Your task to perform on an android device: open app "Google Find My Device" (install if not already installed) Image 0: 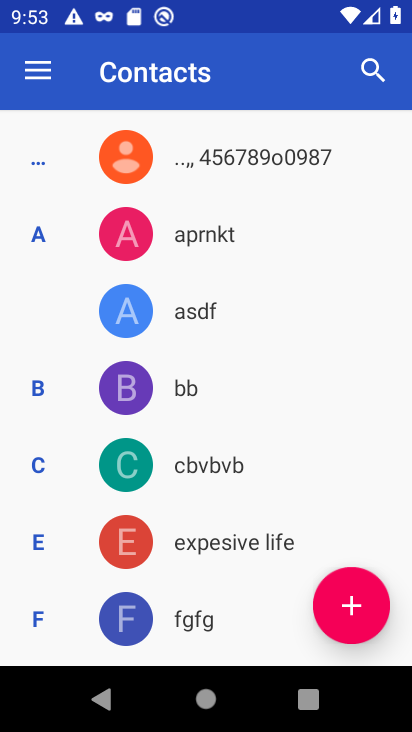
Step 0: press home button
Your task to perform on an android device: open app "Google Find My Device" (install if not already installed) Image 1: 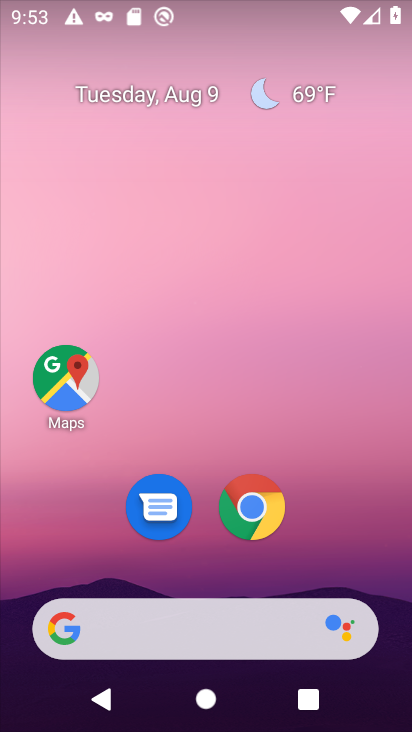
Step 1: drag from (191, 629) to (276, 71)
Your task to perform on an android device: open app "Google Find My Device" (install if not already installed) Image 2: 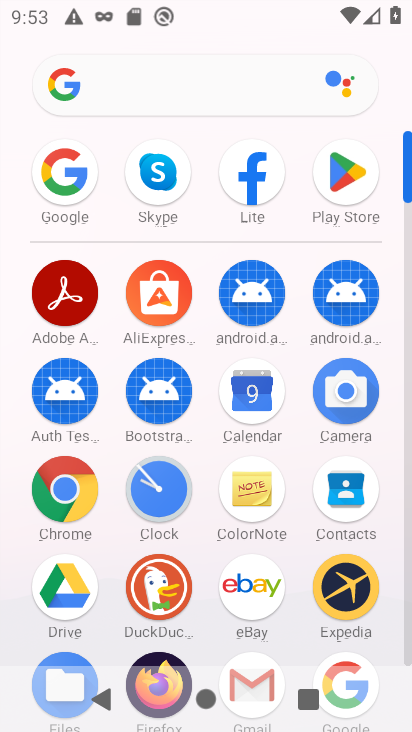
Step 2: click (347, 171)
Your task to perform on an android device: open app "Google Find My Device" (install if not already installed) Image 3: 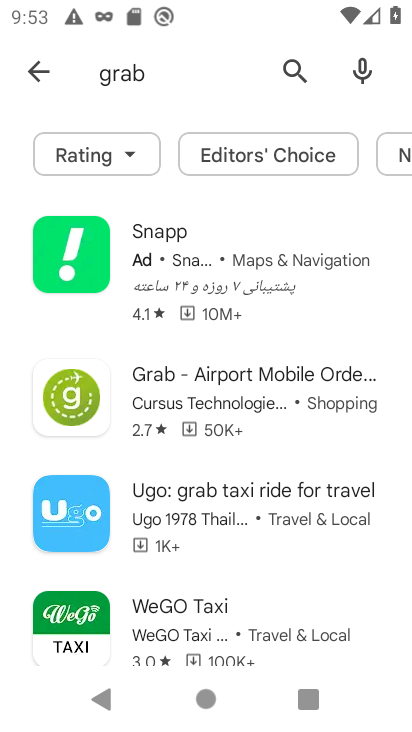
Step 3: click (293, 72)
Your task to perform on an android device: open app "Google Find My Device" (install if not already installed) Image 4: 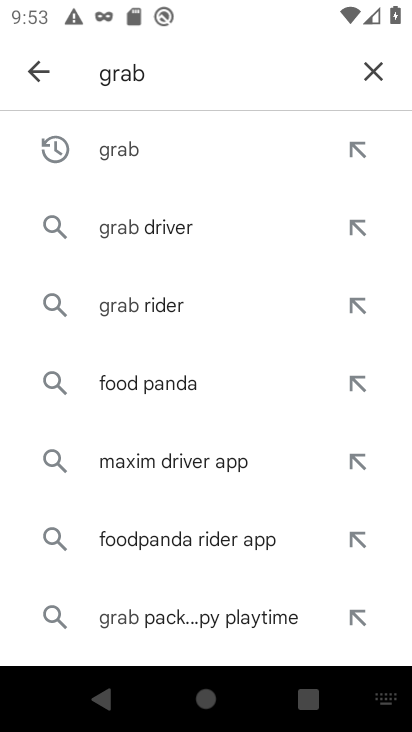
Step 4: click (374, 75)
Your task to perform on an android device: open app "Google Find My Device" (install if not already installed) Image 5: 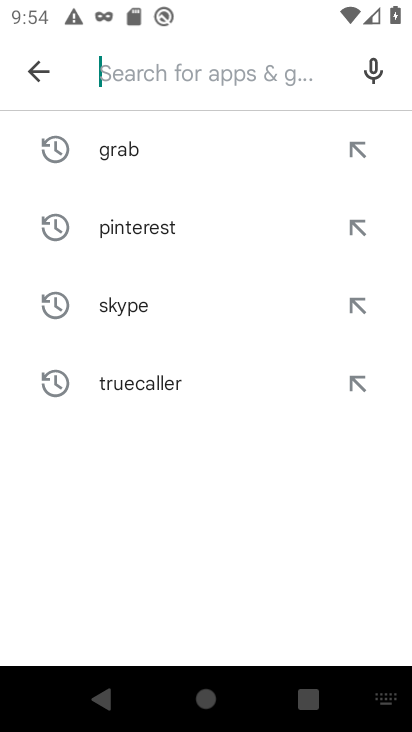
Step 5: type "Google Find My Decive"
Your task to perform on an android device: open app "Google Find My Device" (install if not already installed) Image 6: 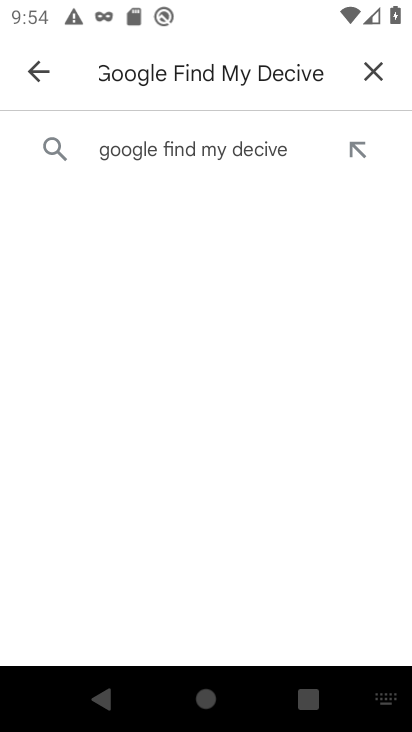
Step 6: click (183, 153)
Your task to perform on an android device: open app "Google Find My Device" (install if not already installed) Image 7: 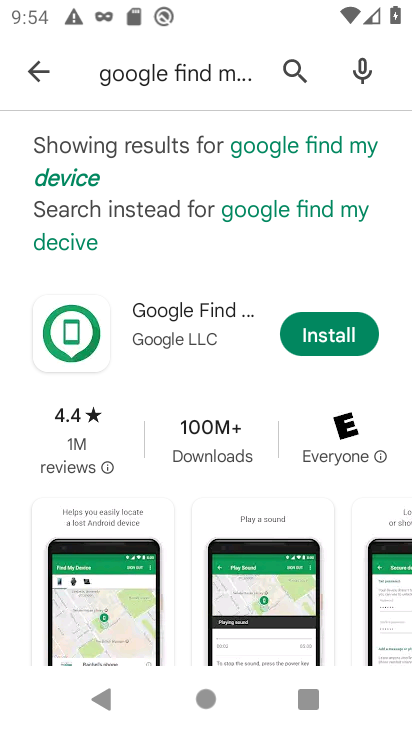
Step 7: click (322, 338)
Your task to perform on an android device: open app "Google Find My Device" (install if not already installed) Image 8: 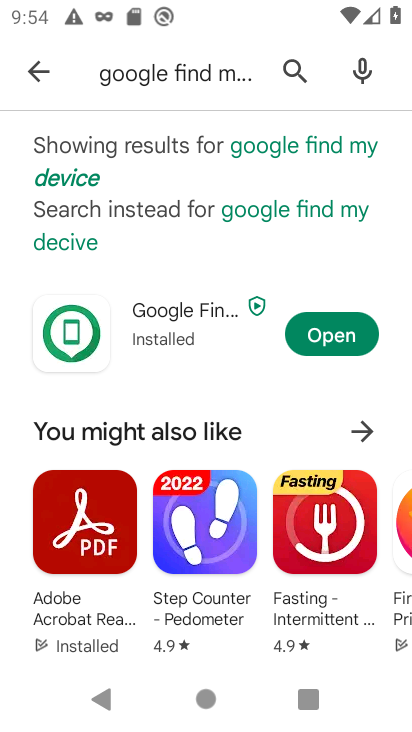
Step 8: click (365, 346)
Your task to perform on an android device: open app "Google Find My Device" (install if not already installed) Image 9: 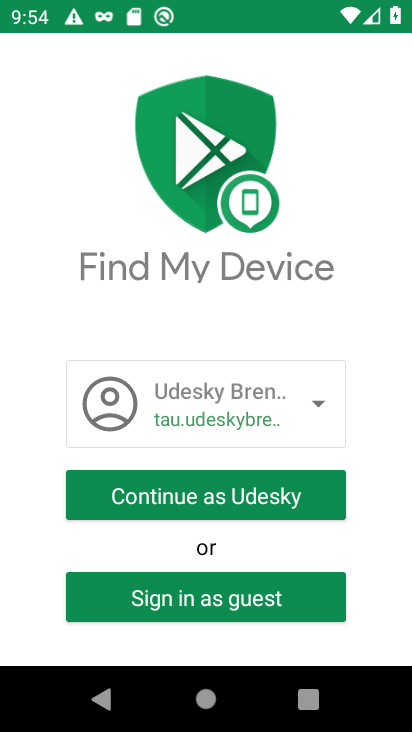
Step 9: task complete